Your task to perform on an android device: install app "Walmart Shopping & Grocery" Image 0: 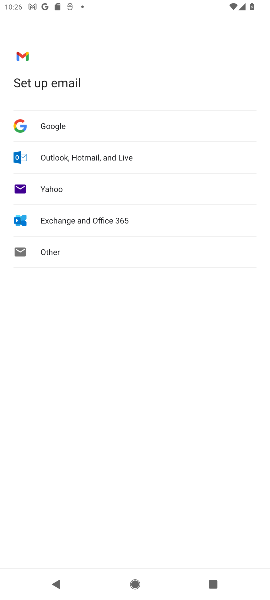
Step 0: task complete